Your task to perform on an android device: Open settings Image 0: 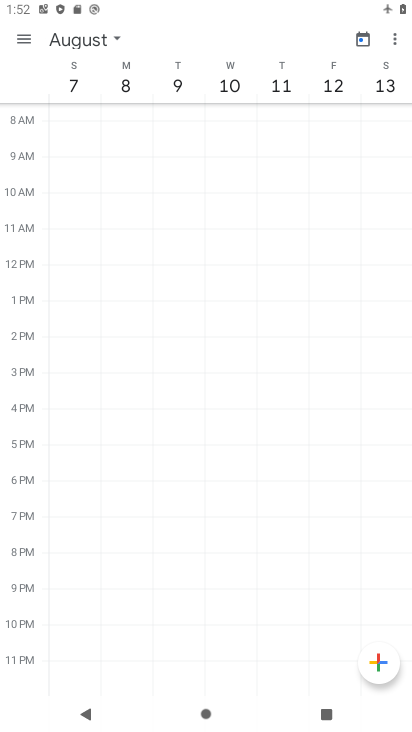
Step 0: press home button
Your task to perform on an android device: Open settings Image 1: 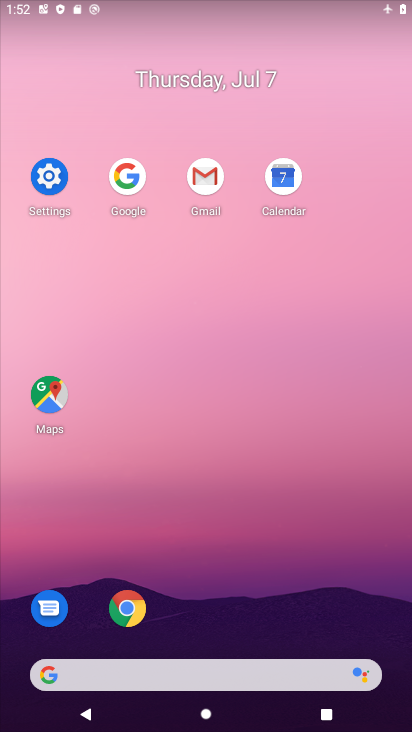
Step 1: click (55, 178)
Your task to perform on an android device: Open settings Image 2: 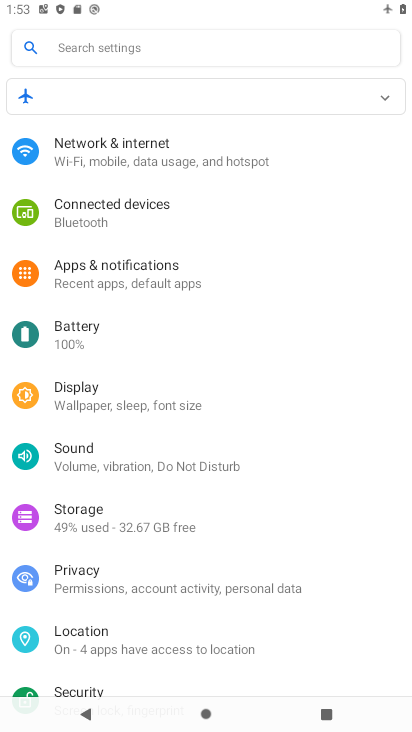
Step 2: task complete